Your task to perform on an android device: Open the calendar and show me this week's events? Image 0: 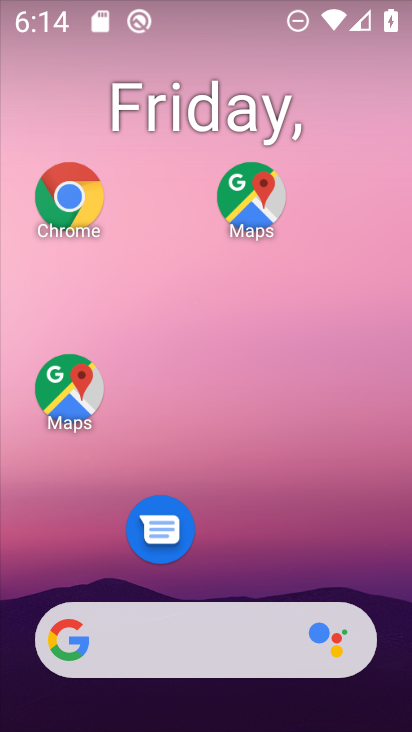
Step 0: drag from (267, 583) to (234, 0)
Your task to perform on an android device: Open the calendar and show me this week's events? Image 1: 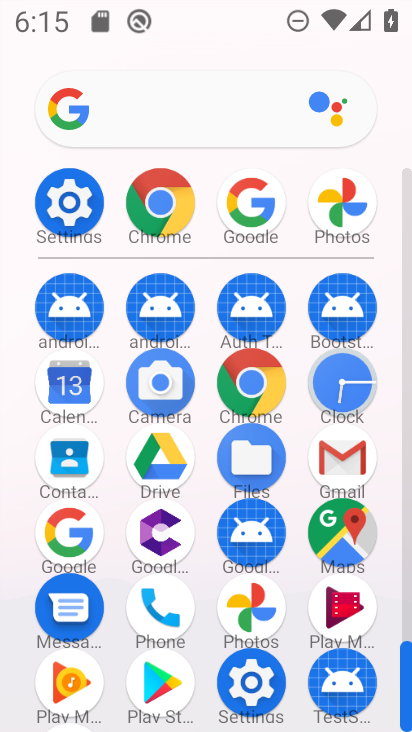
Step 1: click (66, 396)
Your task to perform on an android device: Open the calendar and show me this week's events? Image 2: 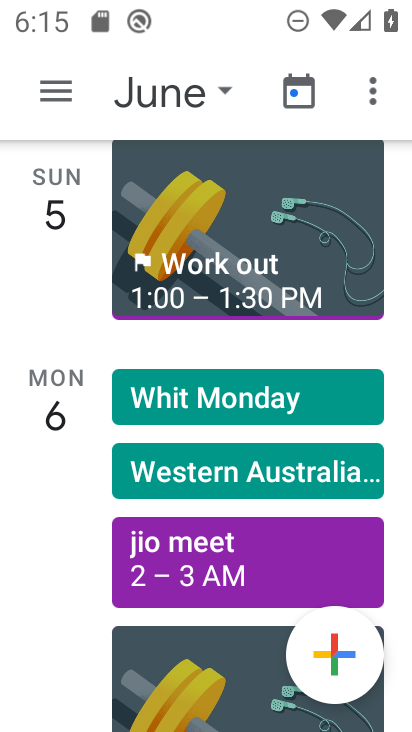
Step 2: click (149, 104)
Your task to perform on an android device: Open the calendar and show me this week's events? Image 3: 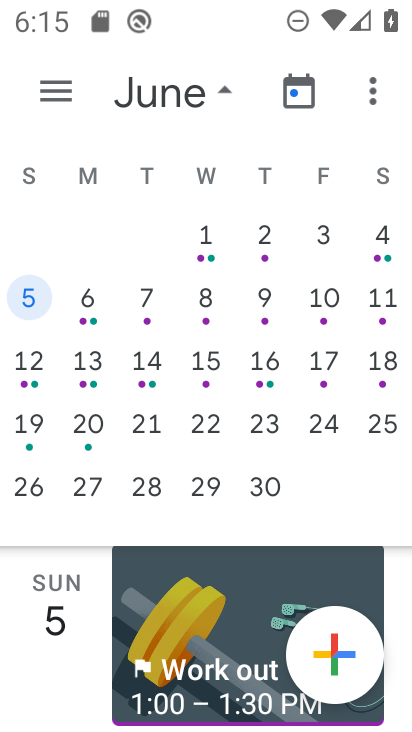
Step 3: drag from (84, 357) to (343, 384)
Your task to perform on an android device: Open the calendar and show me this week's events? Image 4: 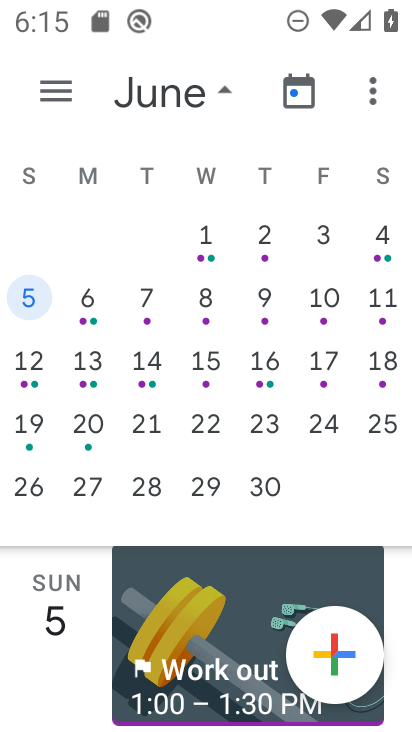
Step 4: drag from (40, 367) to (395, 367)
Your task to perform on an android device: Open the calendar and show me this week's events? Image 5: 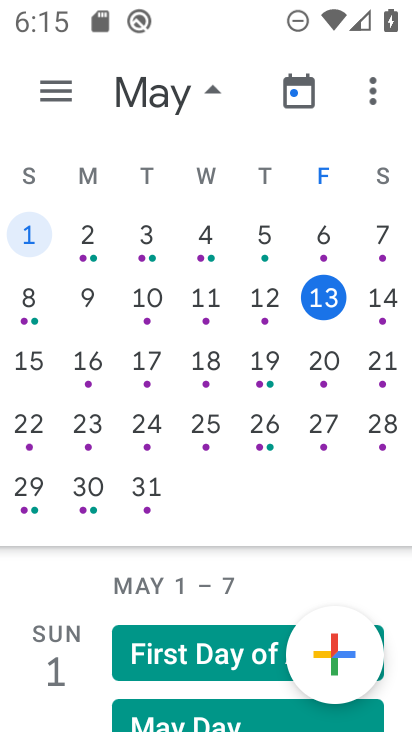
Step 5: click (28, 313)
Your task to perform on an android device: Open the calendar and show me this week's events? Image 6: 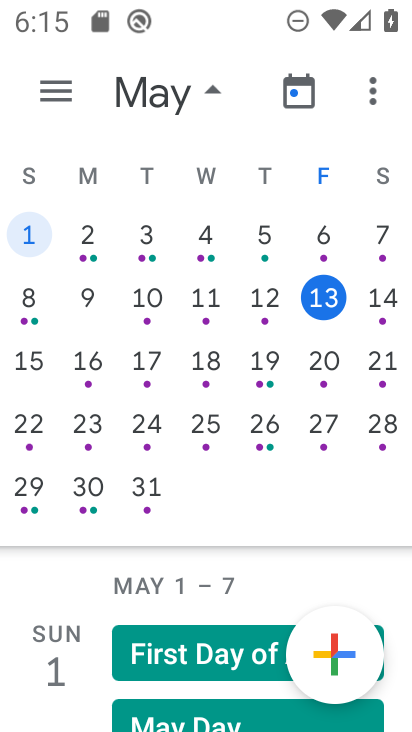
Step 6: click (45, 88)
Your task to perform on an android device: Open the calendar and show me this week's events? Image 7: 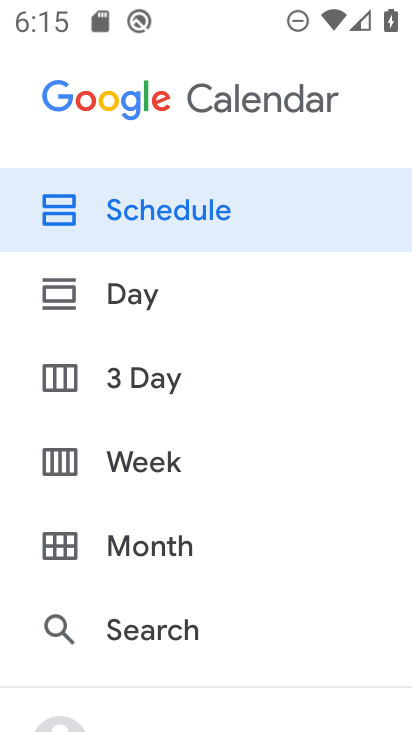
Step 7: click (156, 461)
Your task to perform on an android device: Open the calendar and show me this week's events? Image 8: 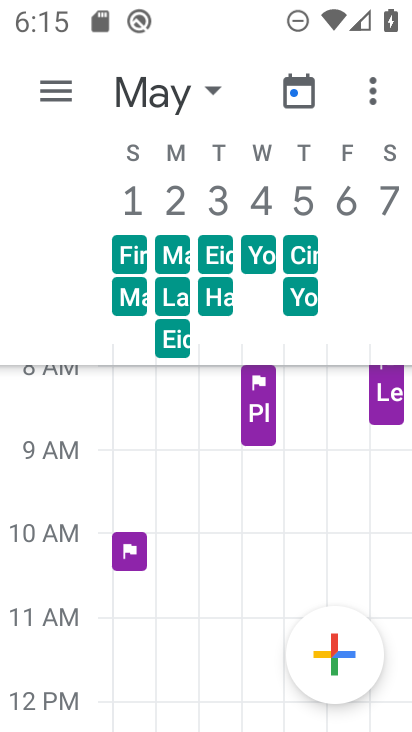
Step 8: click (134, 101)
Your task to perform on an android device: Open the calendar and show me this week's events? Image 9: 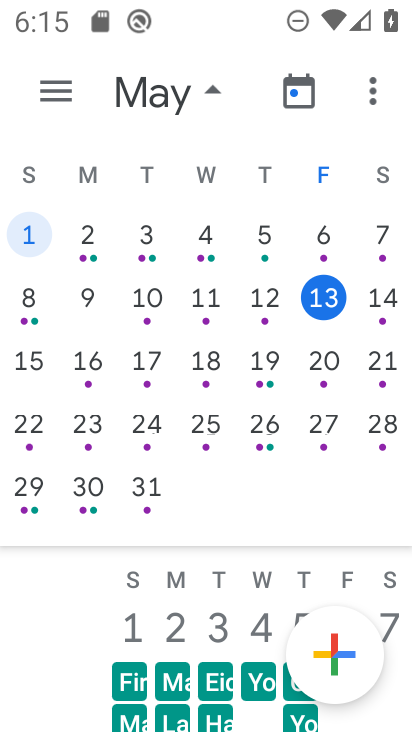
Step 9: click (28, 313)
Your task to perform on an android device: Open the calendar and show me this week's events? Image 10: 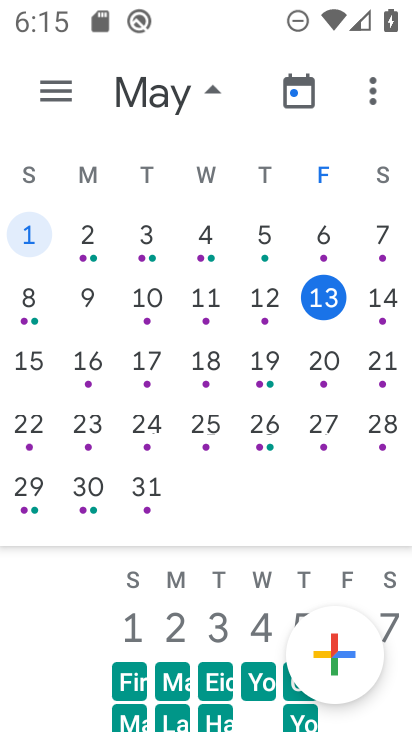
Step 10: click (33, 312)
Your task to perform on an android device: Open the calendar and show me this week's events? Image 11: 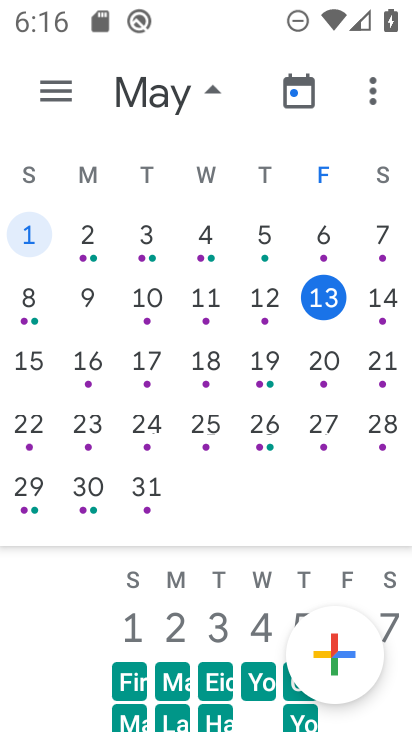
Step 11: click (29, 291)
Your task to perform on an android device: Open the calendar and show me this week's events? Image 12: 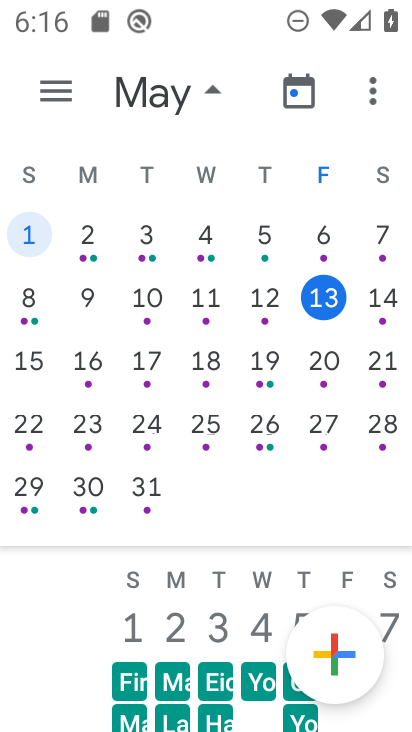
Step 12: click (33, 295)
Your task to perform on an android device: Open the calendar and show me this week's events? Image 13: 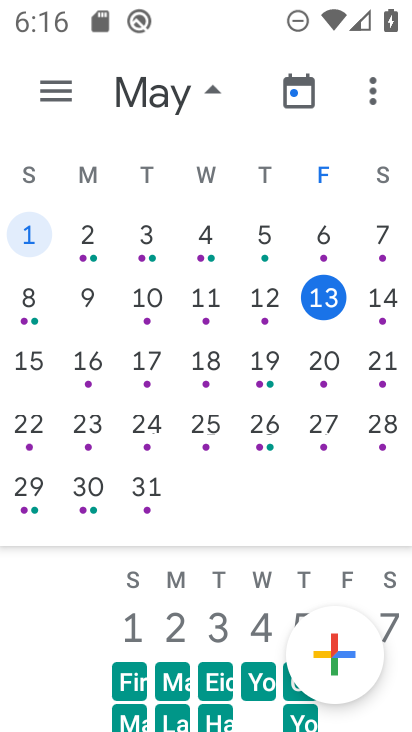
Step 13: click (33, 310)
Your task to perform on an android device: Open the calendar and show me this week's events? Image 14: 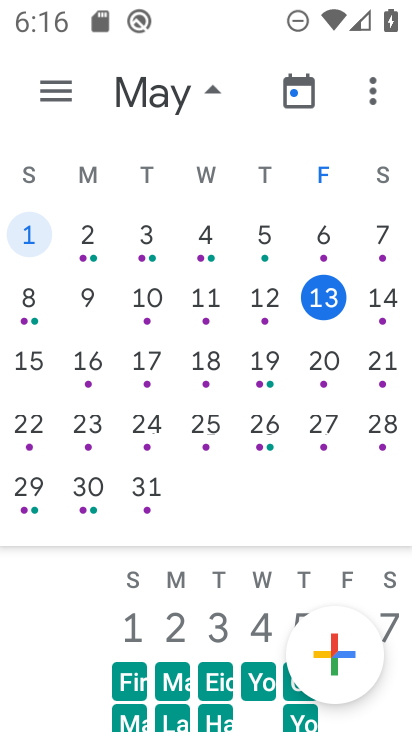
Step 14: click (36, 315)
Your task to perform on an android device: Open the calendar and show me this week's events? Image 15: 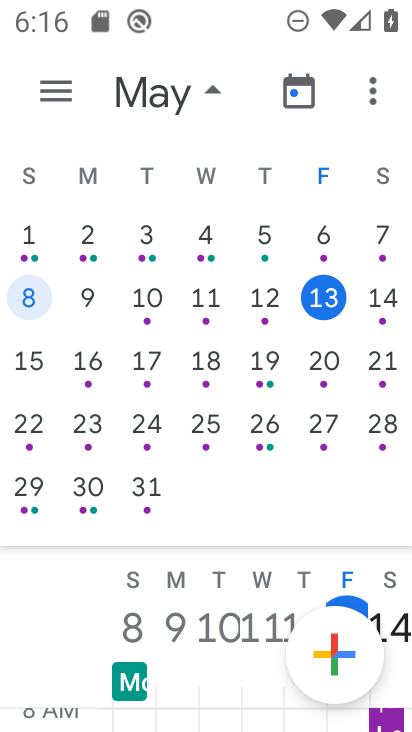
Step 15: task complete